Your task to perform on an android device: turn on data saver in the chrome app Image 0: 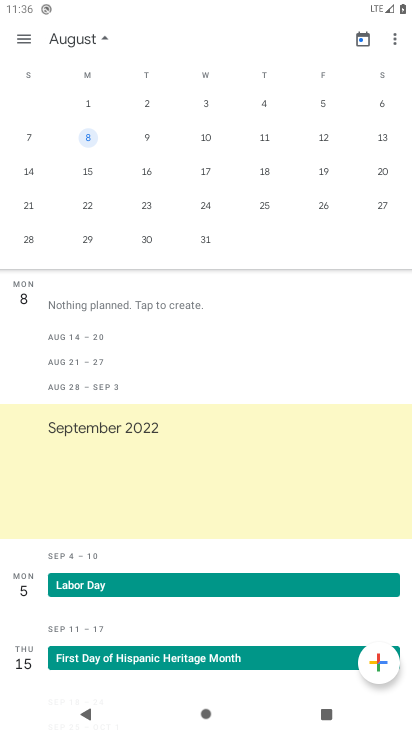
Step 0: press home button
Your task to perform on an android device: turn on data saver in the chrome app Image 1: 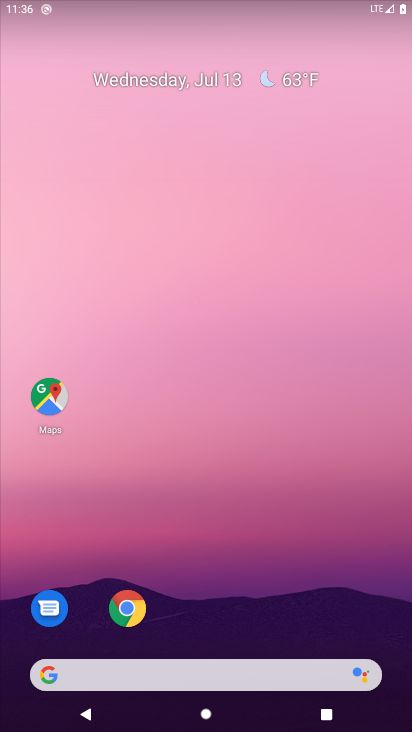
Step 1: drag from (325, 656) to (200, 101)
Your task to perform on an android device: turn on data saver in the chrome app Image 2: 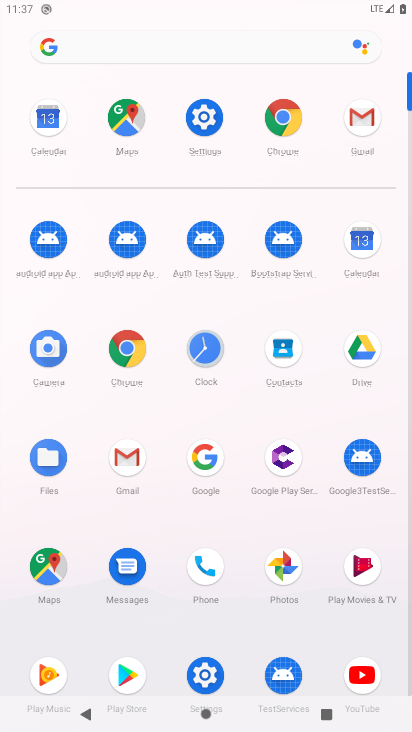
Step 2: click (291, 146)
Your task to perform on an android device: turn on data saver in the chrome app Image 3: 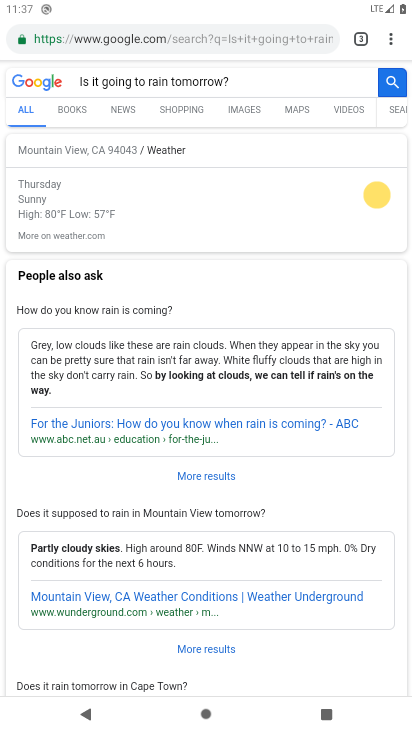
Step 3: drag from (396, 32) to (263, 424)
Your task to perform on an android device: turn on data saver in the chrome app Image 4: 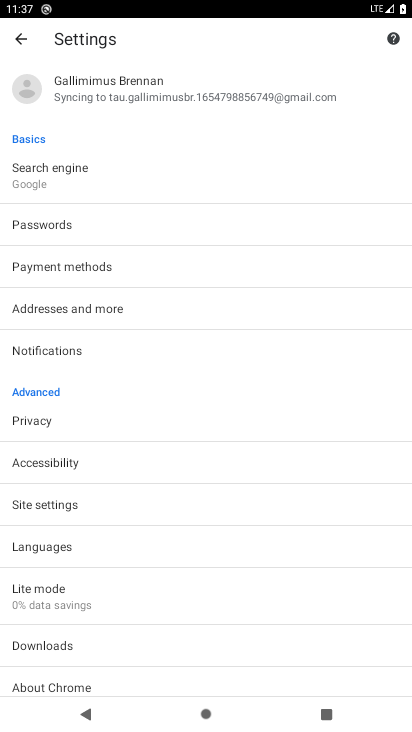
Step 4: click (51, 588)
Your task to perform on an android device: turn on data saver in the chrome app Image 5: 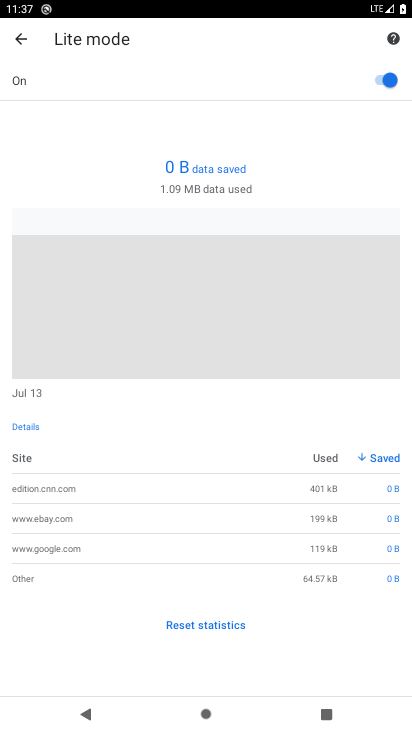
Step 5: task complete